Your task to perform on an android device: What's the weather today? Image 0: 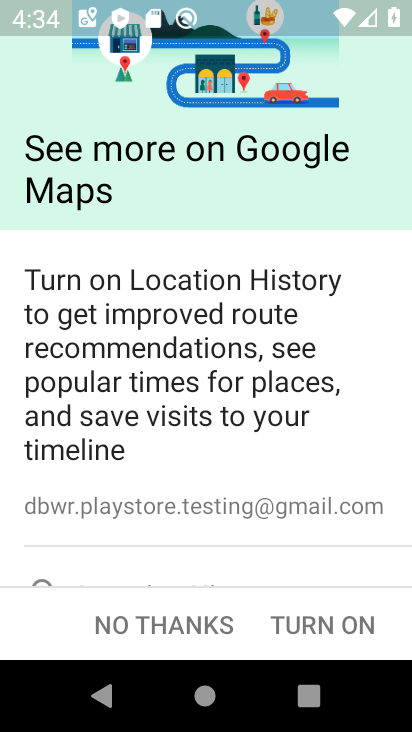
Step 0: click (320, 622)
Your task to perform on an android device: What's the weather today? Image 1: 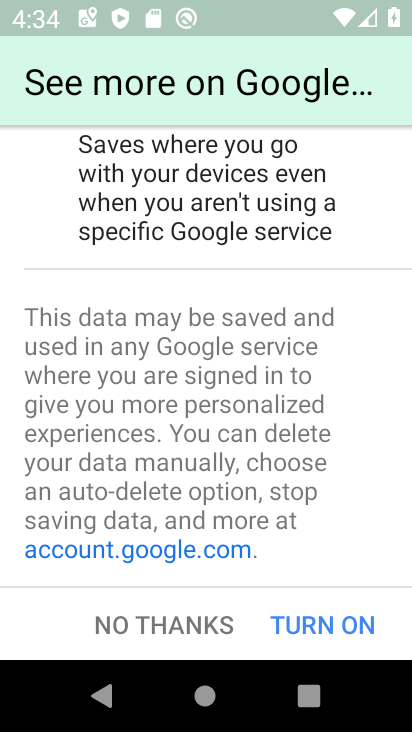
Step 1: click (320, 622)
Your task to perform on an android device: What's the weather today? Image 2: 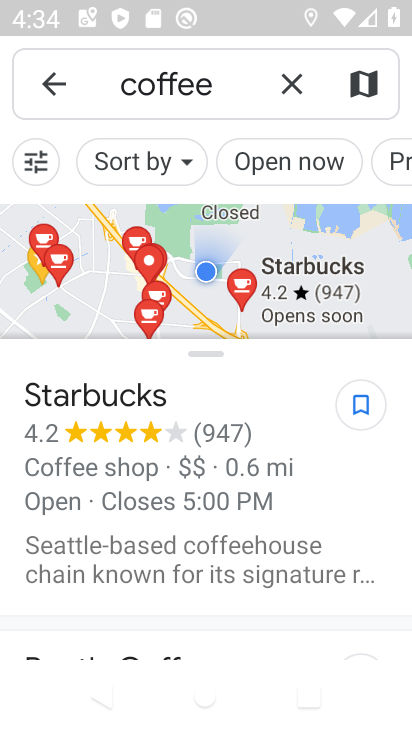
Step 2: press back button
Your task to perform on an android device: What's the weather today? Image 3: 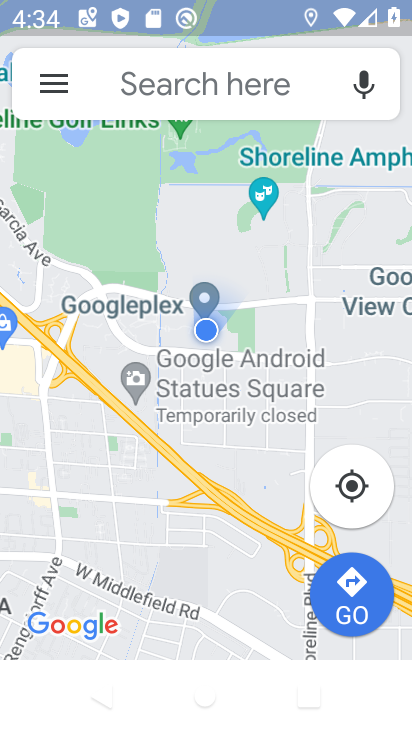
Step 3: press home button
Your task to perform on an android device: What's the weather today? Image 4: 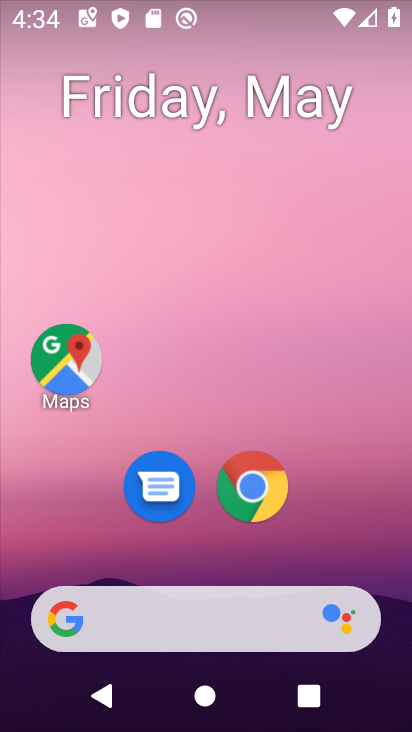
Step 4: drag from (352, 502) to (317, 92)
Your task to perform on an android device: What's the weather today? Image 5: 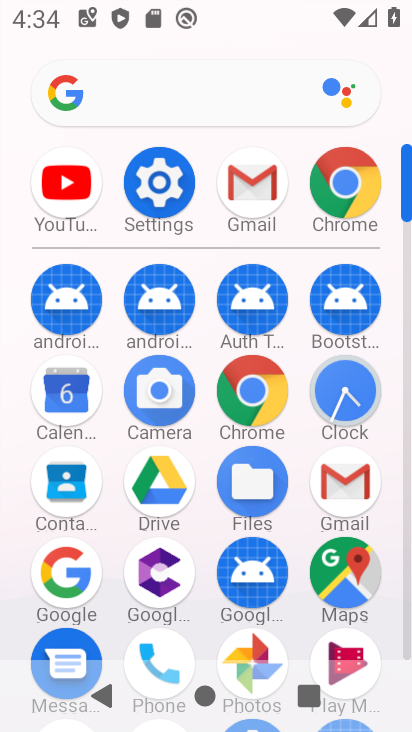
Step 5: drag from (18, 546) to (15, 195)
Your task to perform on an android device: What's the weather today? Image 6: 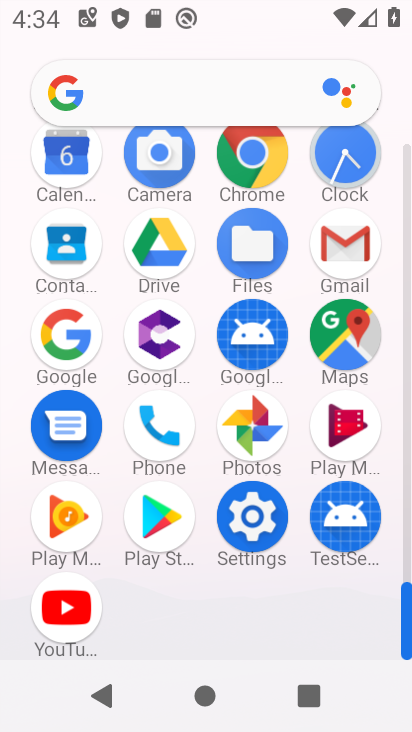
Step 6: drag from (31, 241) to (41, 534)
Your task to perform on an android device: What's the weather today? Image 7: 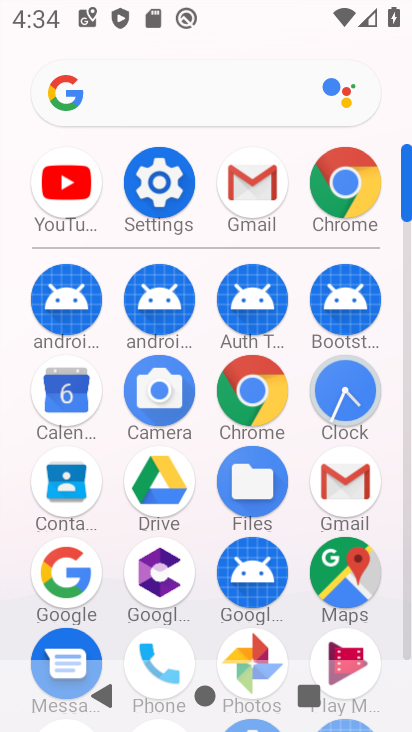
Step 7: drag from (7, 581) to (45, 207)
Your task to perform on an android device: What's the weather today? Image 8: 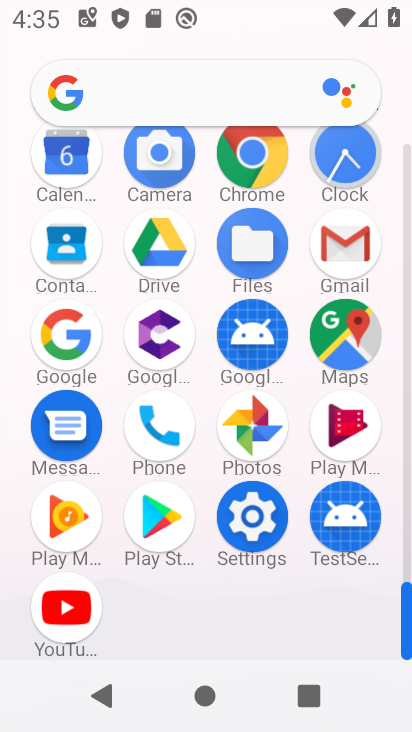
Step 8: click (244, 145)
Your task to perform on an android device: What's the weather today? Image 9: 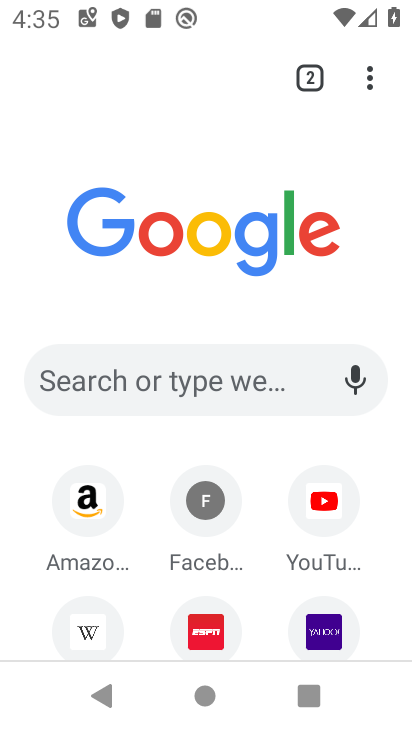
Step 9: click (204, 370)
Your task to perform on an android device: What's the weather today? Image 10: 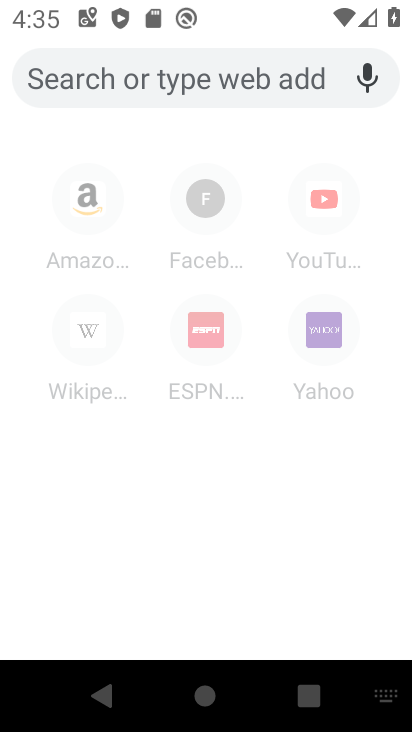
Step 10: click (150, 94)
Your task to perform on an android device: What's the weather today? Image 11: 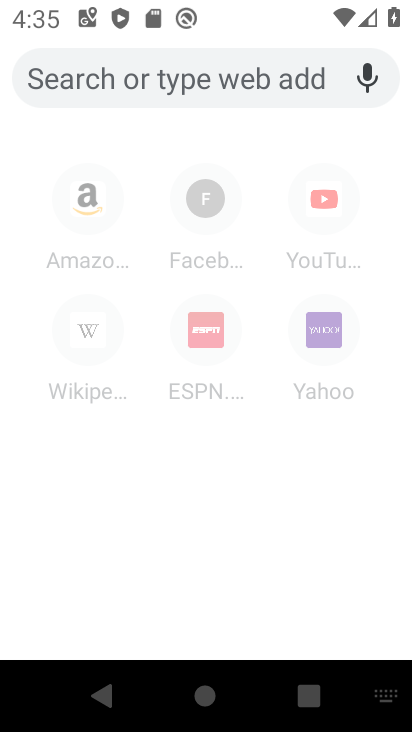
Step 11: type "What's the weather today?"
Your task to perform on an android device: What's the weather today? Image 12: 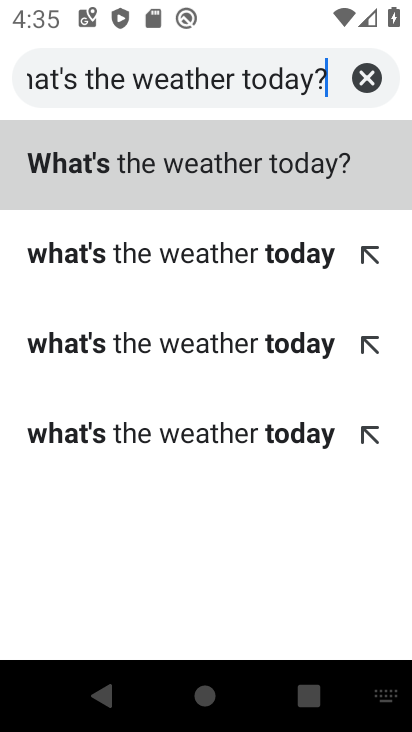
Step 12: click (194, 156)
Your task to perform on an android device: What's the weather today? Image 13: 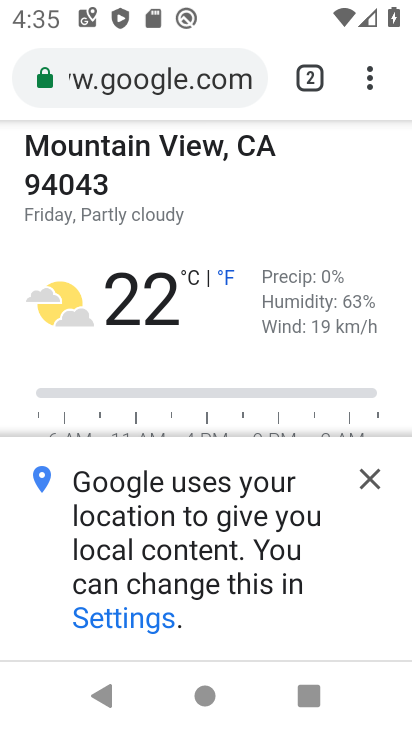
Step 13: click (381, 480)
Your task to perform on an android device: What's the weather today? Image 14: 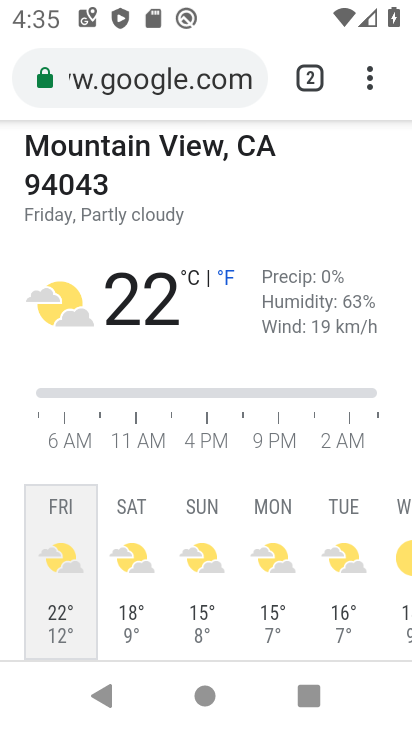
Step 14: task complete